Your task to perform on an android device: turn on javascript in the chrome app Image 0: 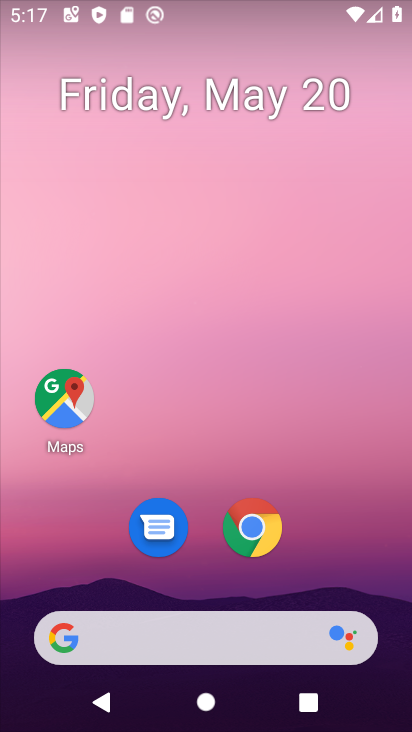
Step 0: drag from (323, 608) to (411, 375)
Your task to perform on an android device: turn on javascript in the chrome app Image 1: 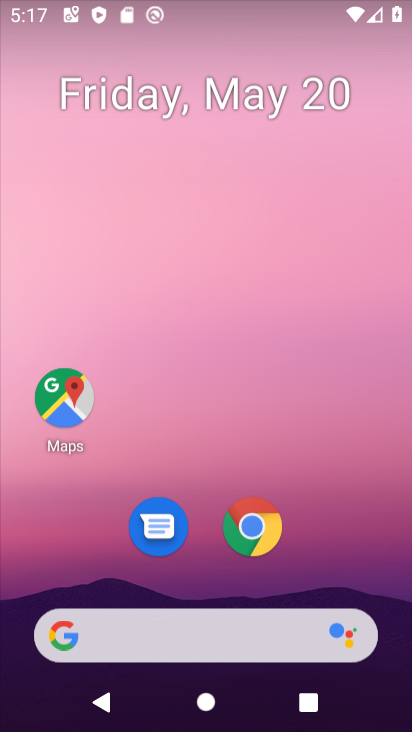
Step 1: click (260, 393)
Your task to perform on an android device: turn on javascript in the chrome app Image 2: 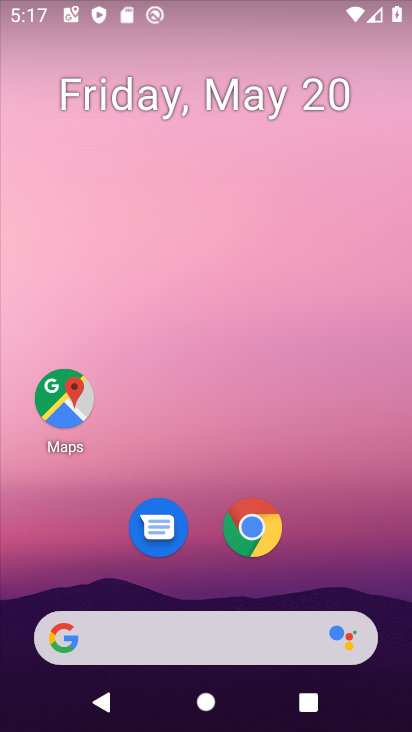
Step 2: drag from (314, 562) to (408, 12)
Your task to perform on an android device: turn on javascript in the chrome app Image 3: 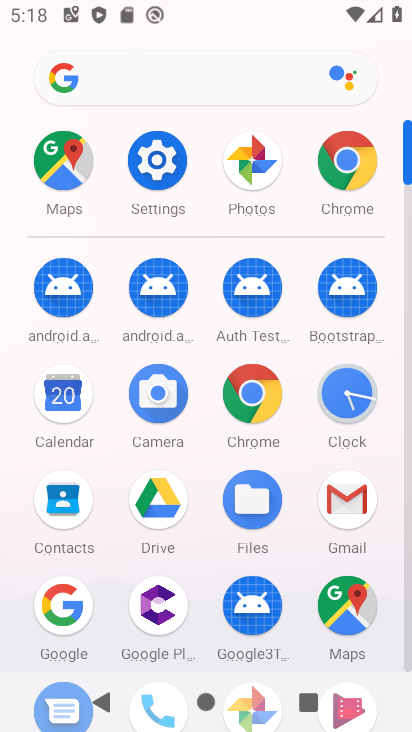
Step 3: click (265, 411)
Your task to perform on an android device: turn on javascript in the chrome app Image 4: 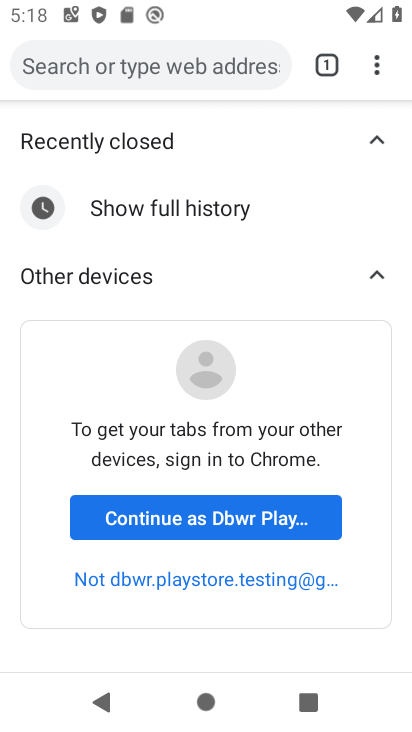
Step 4: drag from (377, 59) to (163, 558)
Your task to perform on an android device: turn on javascript in the chrome app Image 5: 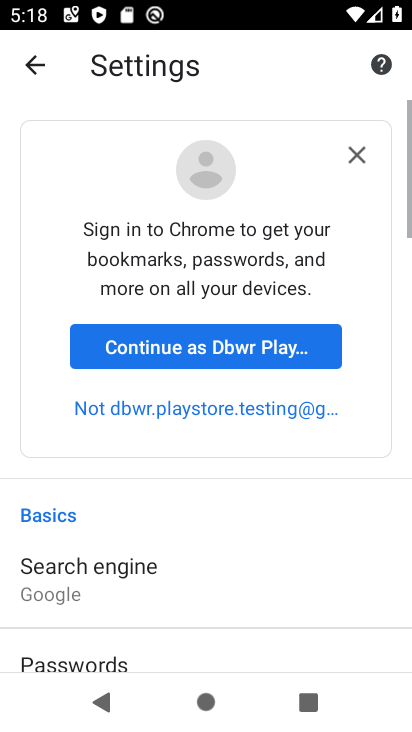
Step 5: drag from (283, 639) to (324, 63)
Your task to perform on an android device: turn on javascript in the chrome app Image 6: 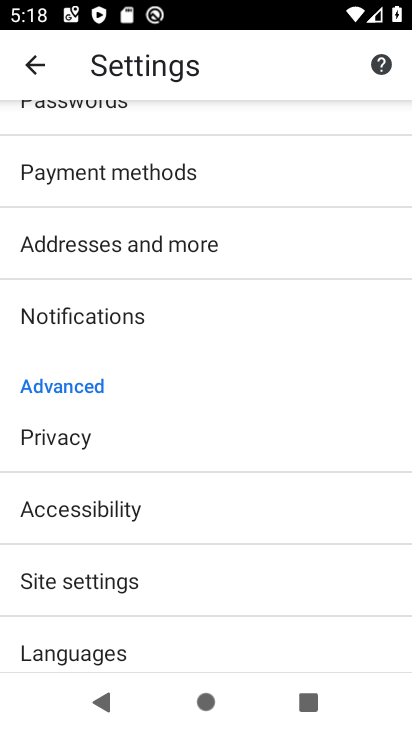
Step 6: click (186, 585)
Your task to perform on an android device: turn on javascript in the chrome app Image 7: 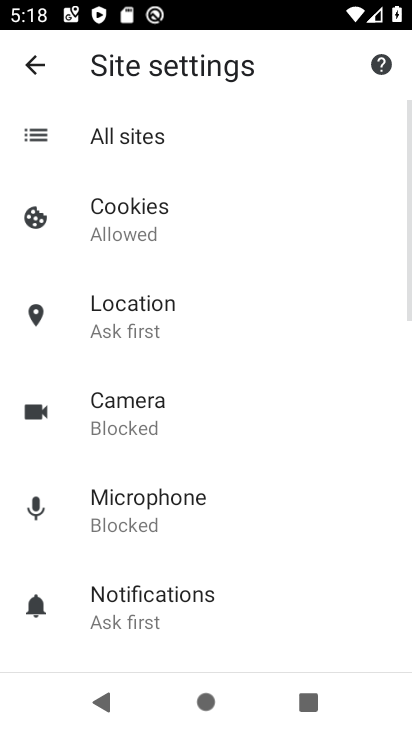
Step 7: drag from (233, 591) to (274, 189)
Your task to perform on an android device: turn on javascript in the chrome app Image 8: 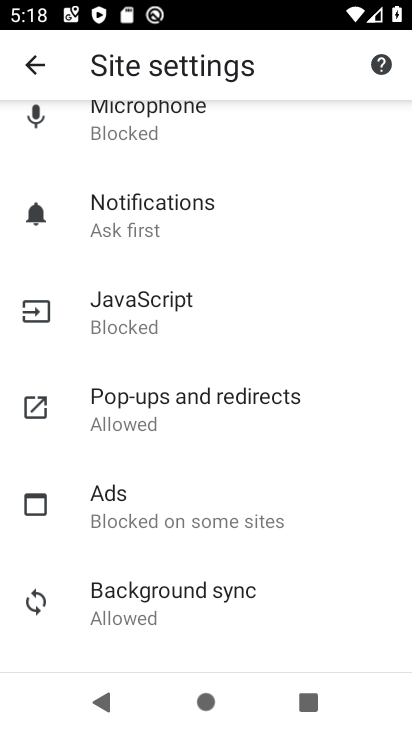
Step 8: click (152, 309)
Your task to perform on an android device: turn on javascript in the chrome app Image 9: 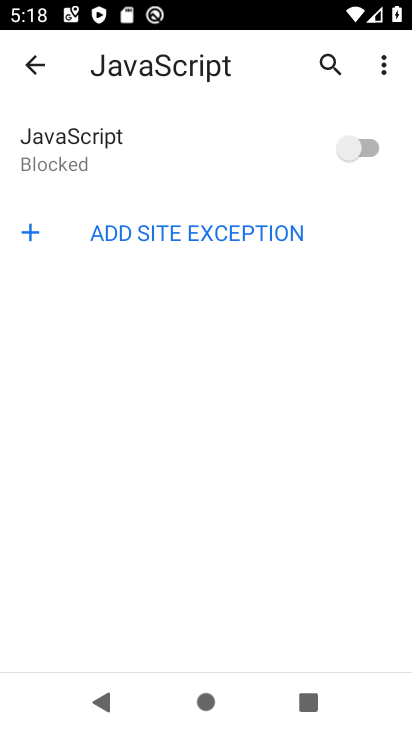
Step 9: click (358, 149)
Your task to perform on an android device: turn on javascript in the chrome app Image 10: 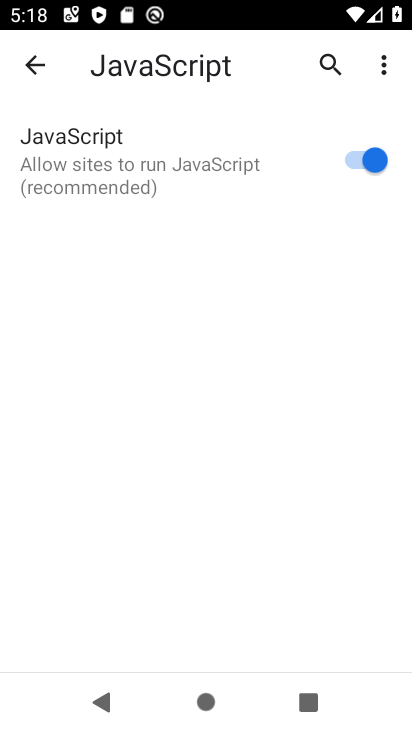
Step 10: task complete